Your task to perform on an android device: open app "Upside-Cash back on gas & food" Image 0: 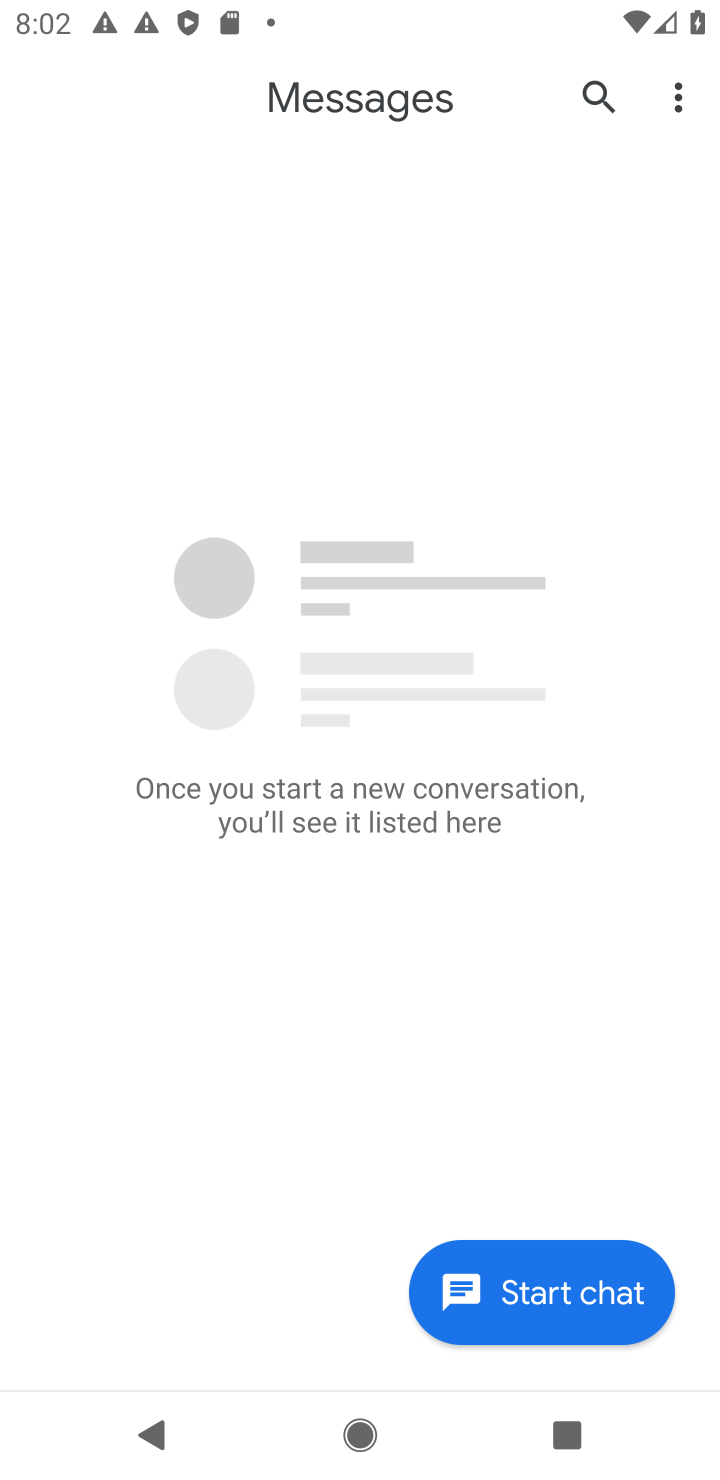
Step 0: press home button
Your task to perform on an android device: open app "Upside-Cash back on gas & food" Image 1: 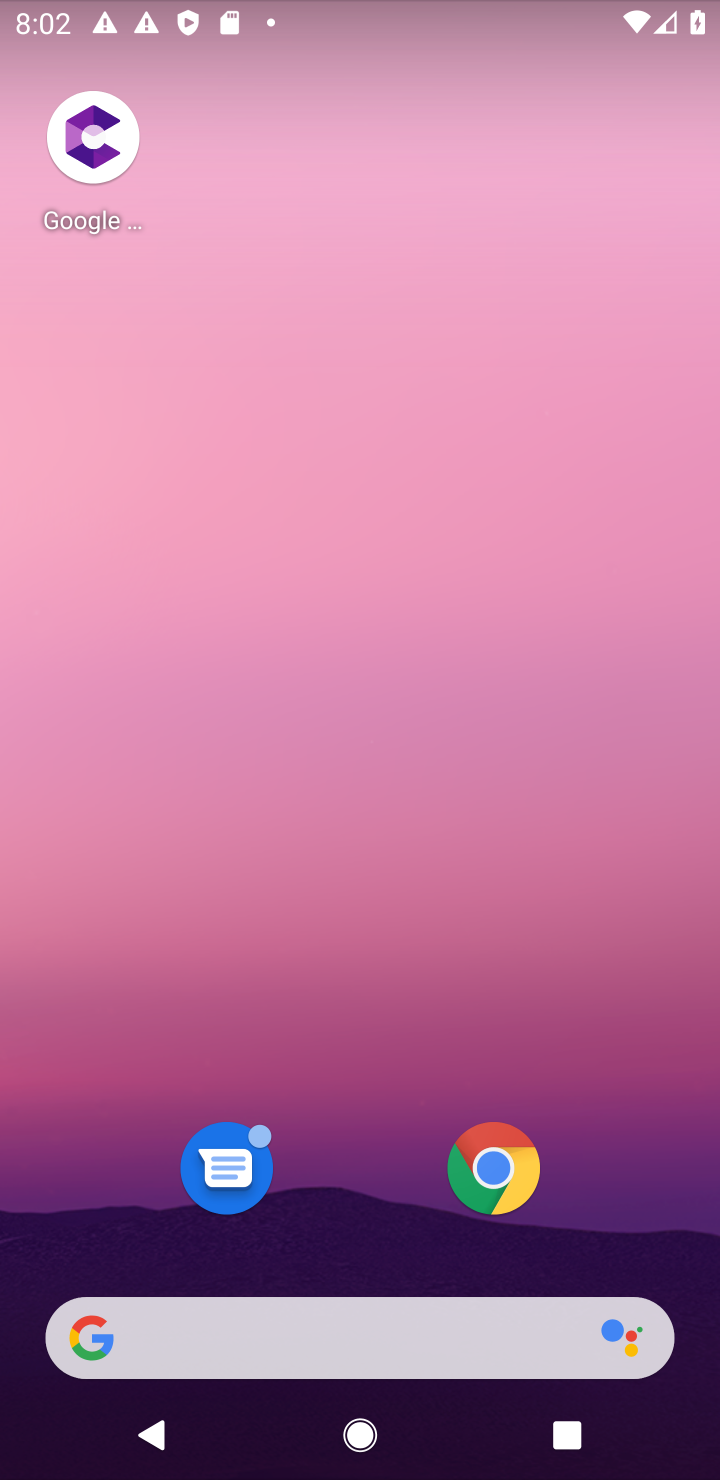
Step 1: click (450, 267)
Your task to perform on an android device: open app "Upside-Cash back on gas & food" Image 2: 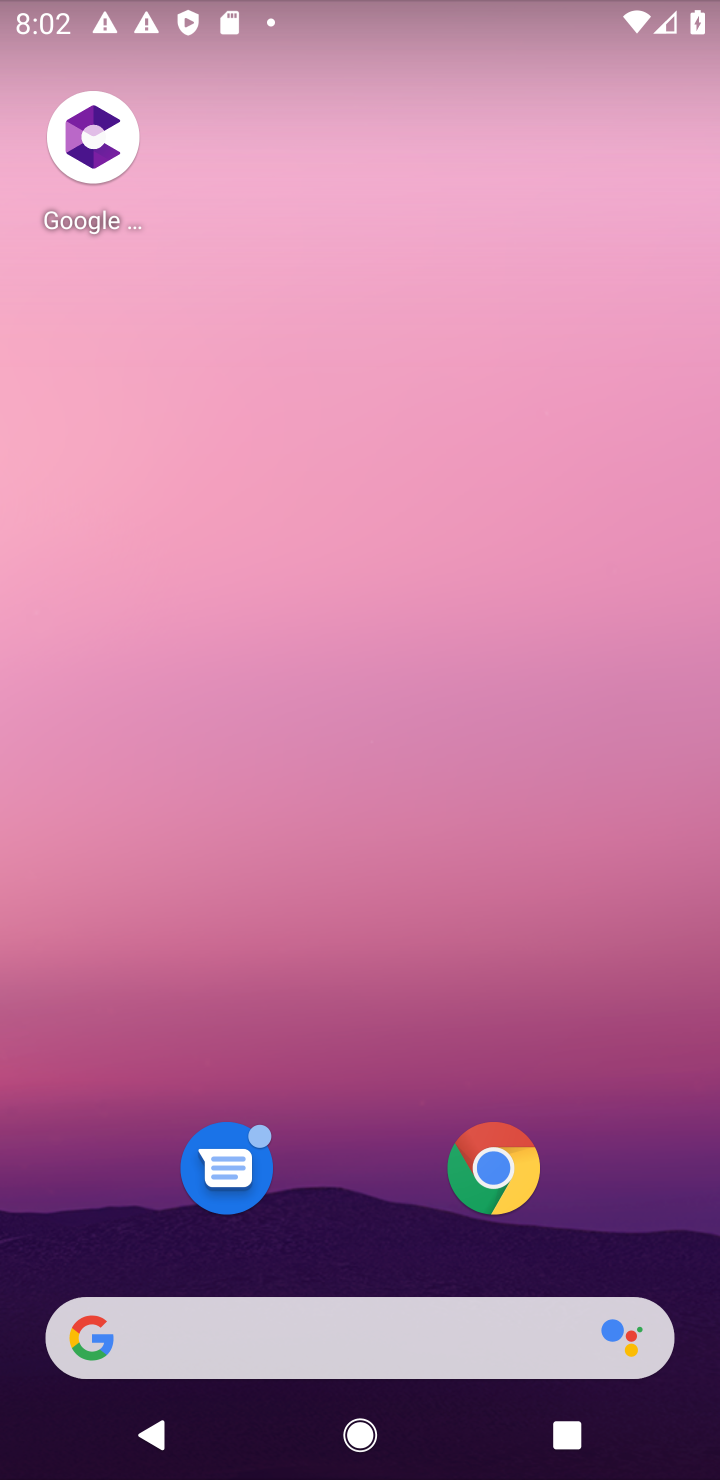
Step 2: drag from (341, 786) to (393, 263)
Your task to perform on an android device: open app "Upside-Cash back on gas & food" Image 3: 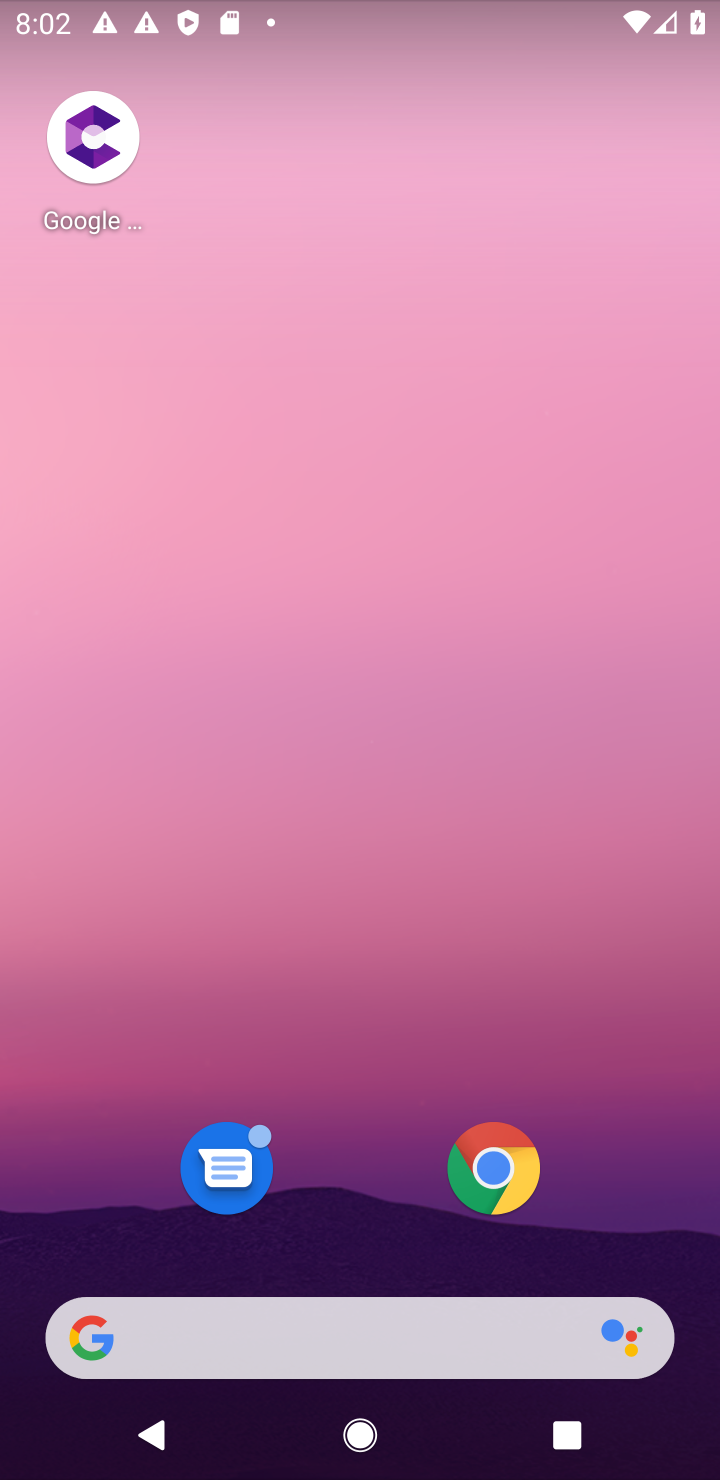
Step 3: drag from (352, 1160) to (338, 195)
Your task to perform on an android device: open app "Upside-Cash back on gas & food" Image 4: 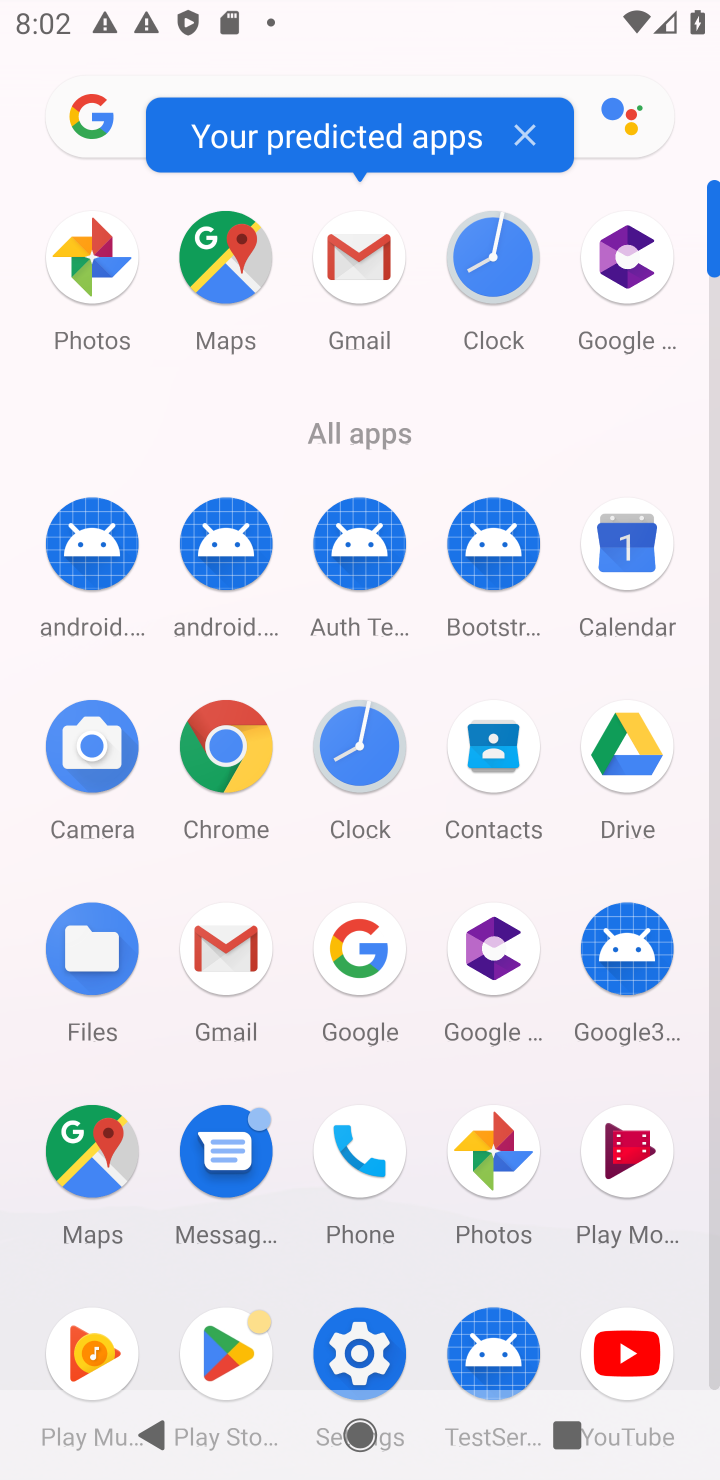
Step 4: click (233, 1361)
Your task to perform on an android device: open app "Upside-Cash back on gas & food" Image 5: 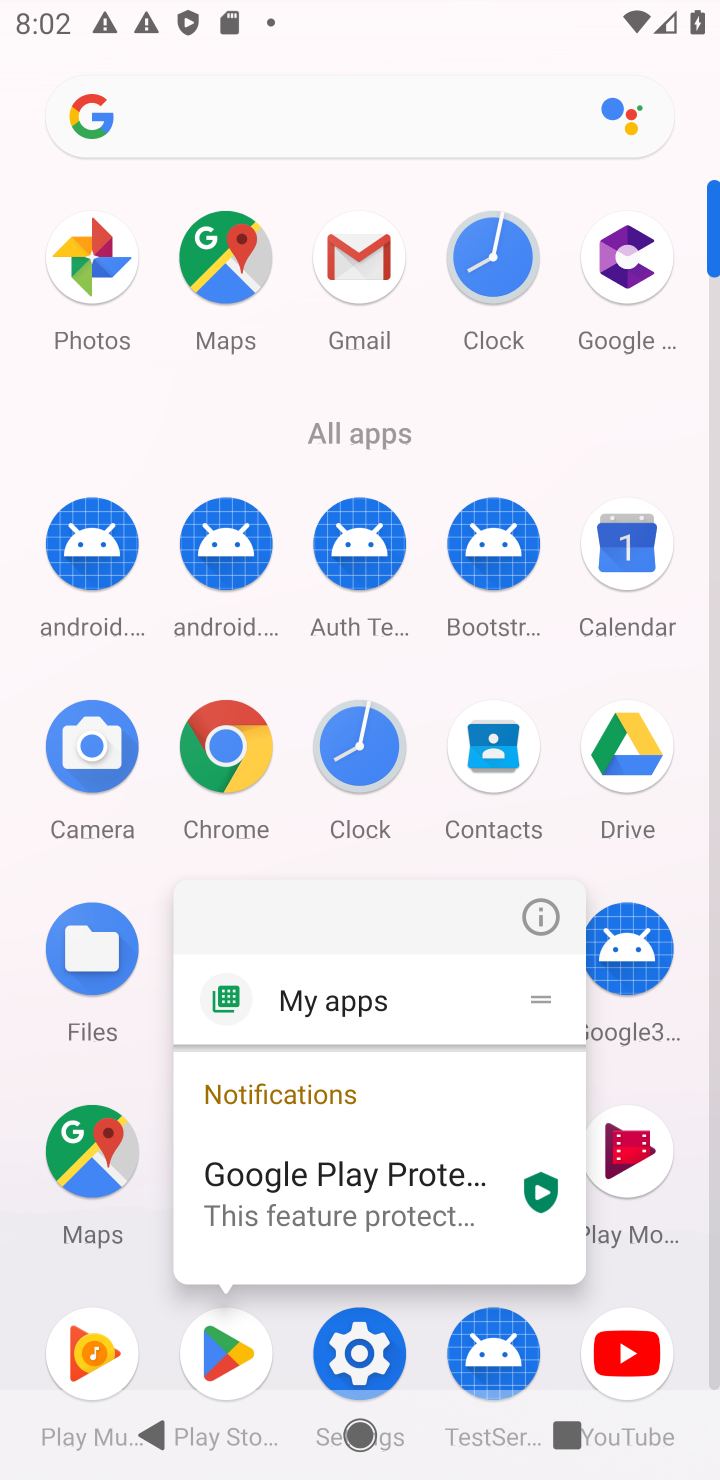
Step 5: click (247, 1361)
Your task to perform on an android device: open app "Upside-Cash back on gas & food" Image 6: 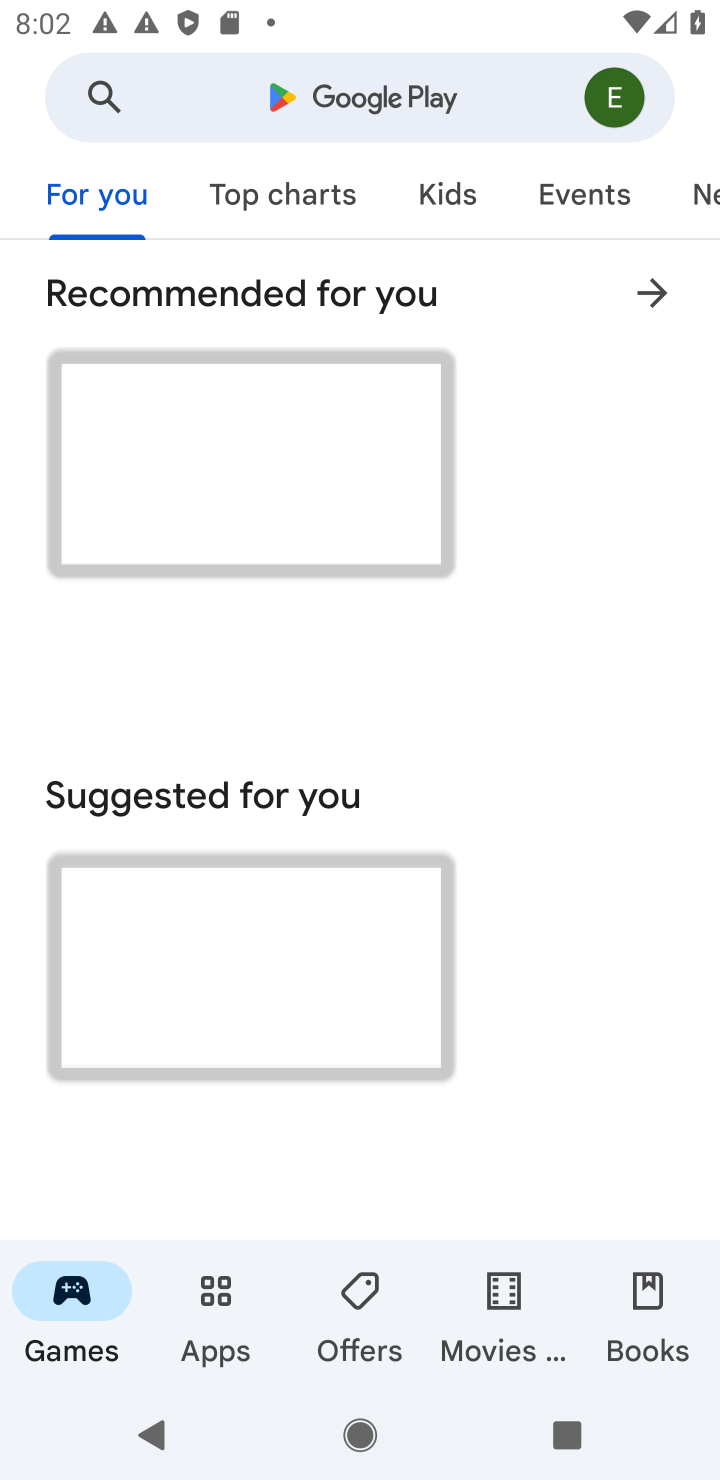
Step 6: click (353, 107)
Your task to perform on an android device: open app "Upside-Cash back on gas & food" Image 7: 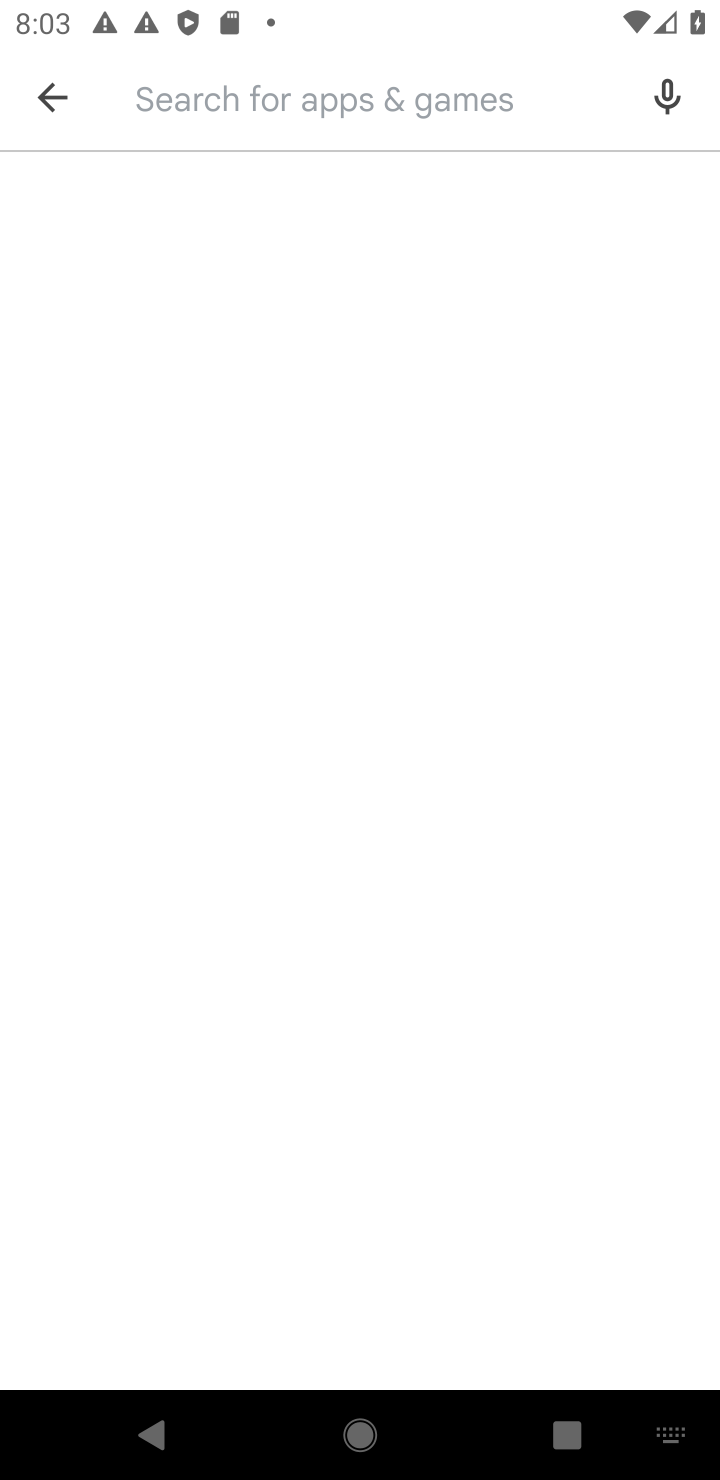
Step 7: type "Upside-Cash back on gas & food"
Your task to perform on an android device: open app "Upside-Cash back on gas & food" Image 8: 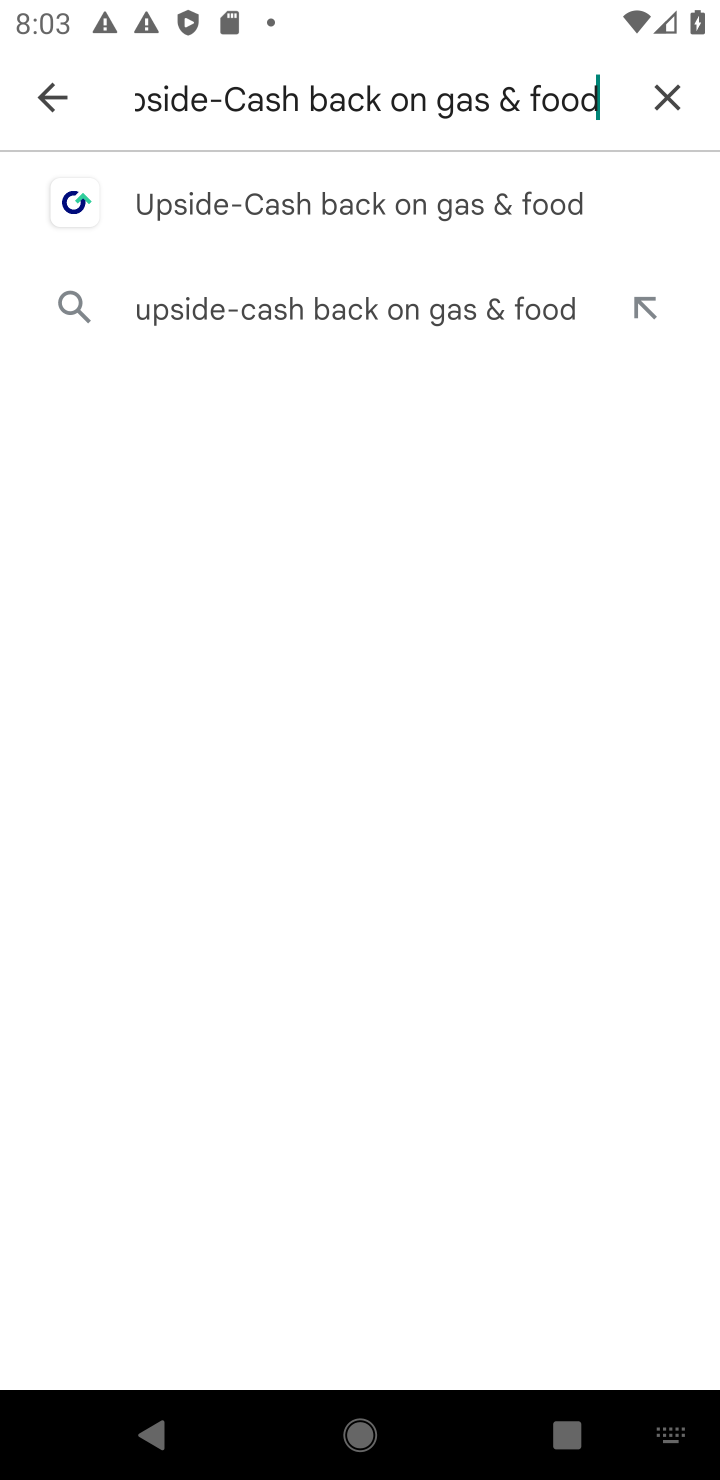
Step 8: click (226, 205)
Your task to perform on an android device: open app "Upside-Cash back on gas & food" Image 9: 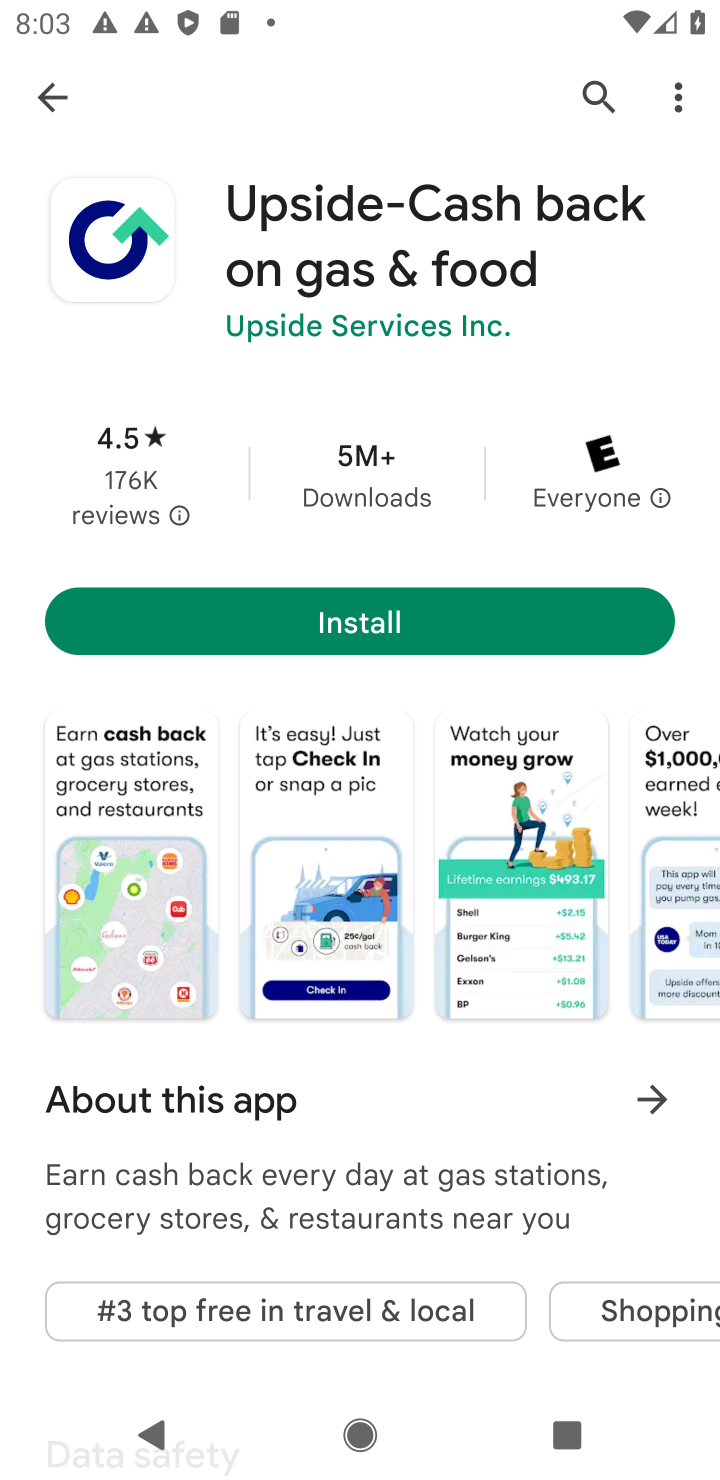
Step 9: task complete